Your task to perform on an android device: Open Reddit.com Image 0: 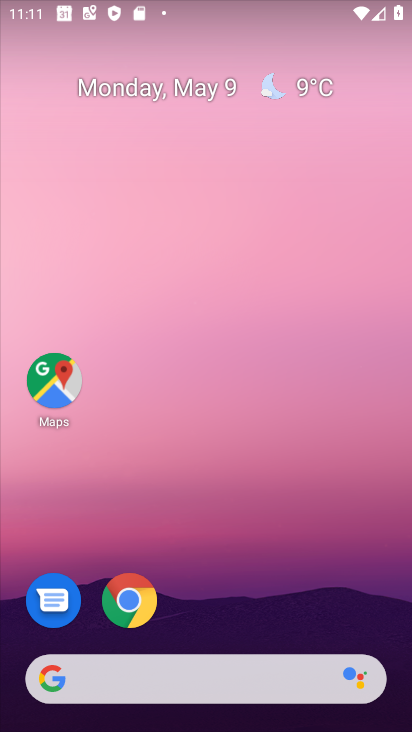
Step 0: drag from (312, 603) to (341, 197)
Your task to perform on an android device: Open Reddit.com Image 1: 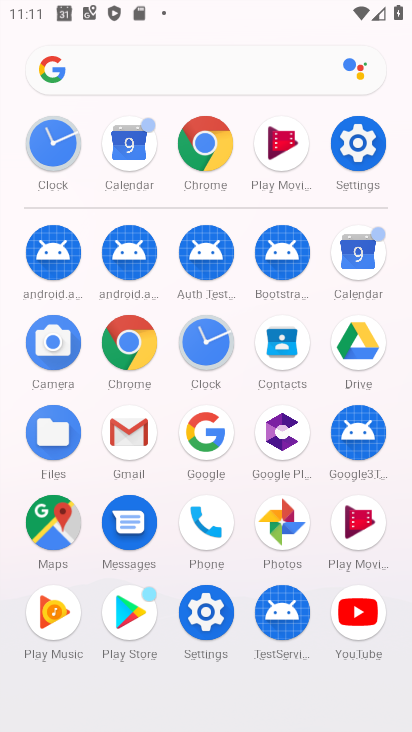
Step 1: click (141, 345)
Your task to perform on an android device: Open Reddit.com Image 2: 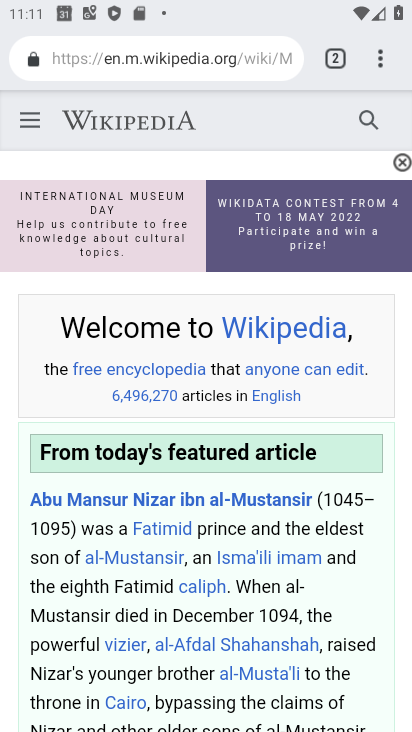
Step 2: click (162, 42)
Your task to perform on an android device: Open Reddit.com Image 3: 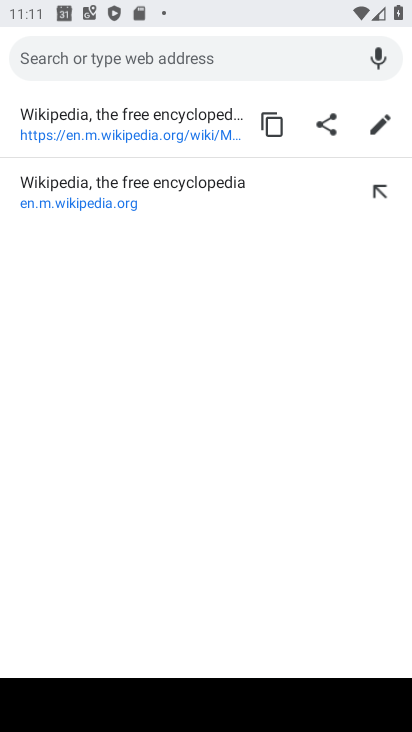
Step 3: type "reddit.com"
Your task to perform on an android device: Open Reddit.com Image 4: 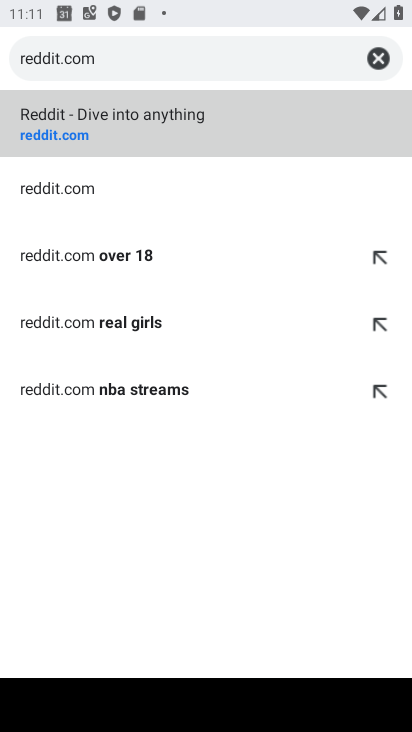
Step 4: click (54, 120)
Your task to perform on an android device: Open Reddit.com Image 5: 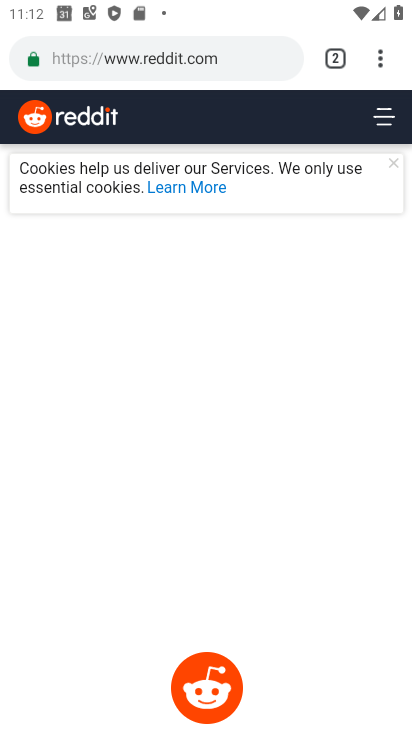
Step 5: task complete